Your task to perform on an android device: search for starred emails in the gmail app Image 0: 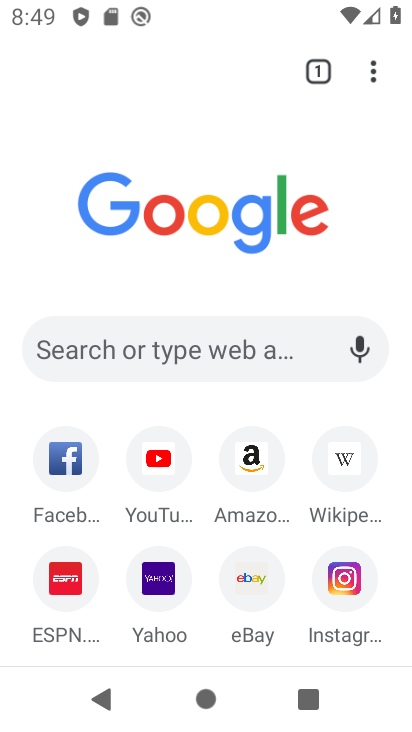
Step 0: press home button
Your task to perform on an android device: search for starred emails in the gmail app Image 1: 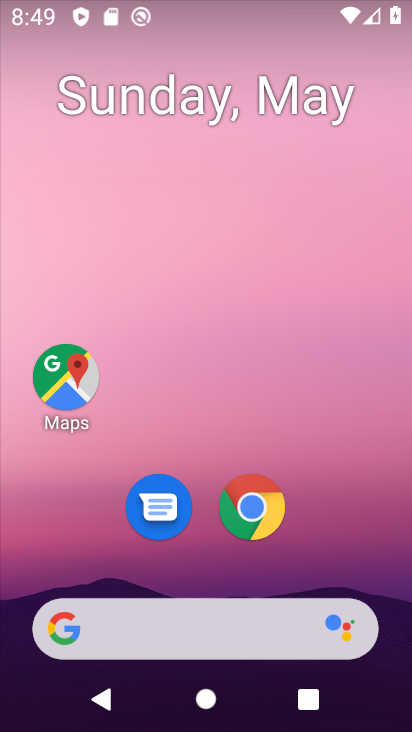
Step 1: drag from (206, 557) to (234, 204)
Your task to perform on an android device: search for starred emails in the gmail app Image 2: 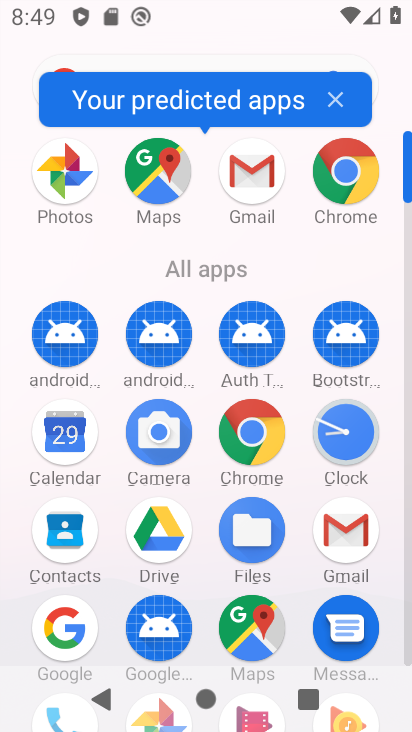
Step 2: click (342, 534)
Your task to perform on an android device: search for starred emails in the gmail app Image 3: 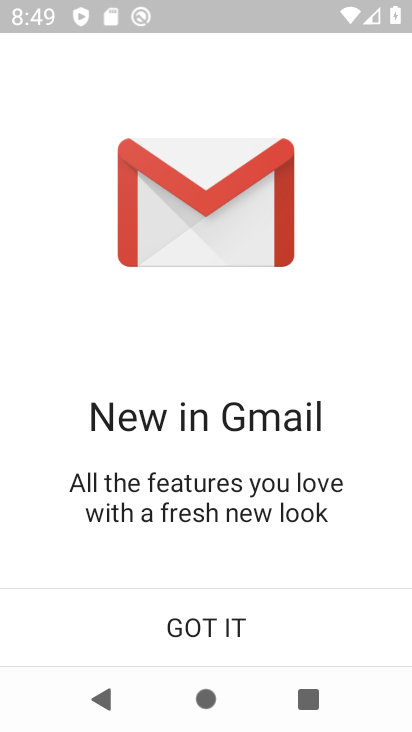
Step 3: click (231, 642)
Your task to perform on an android device: search for starred emails in the gmail app Image 4: 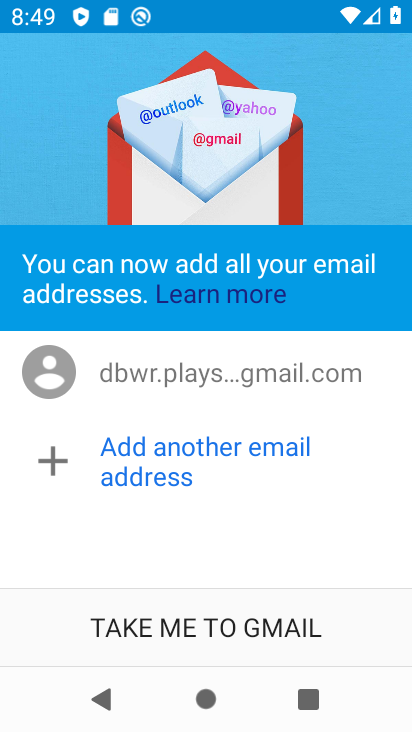
Step 4: click (233, 640)
Your task to perform on an android device: search for starred emails in the gmail app Image 5: 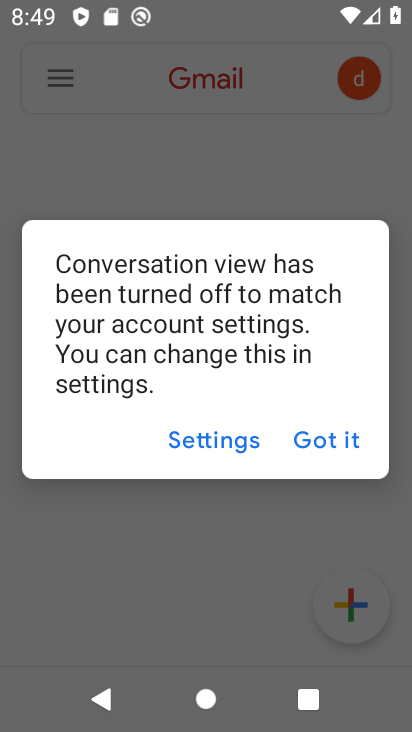
Step 5: click (318, 433)
Your task to perform on an android device: search for starred emails in the gmail app Image 6: 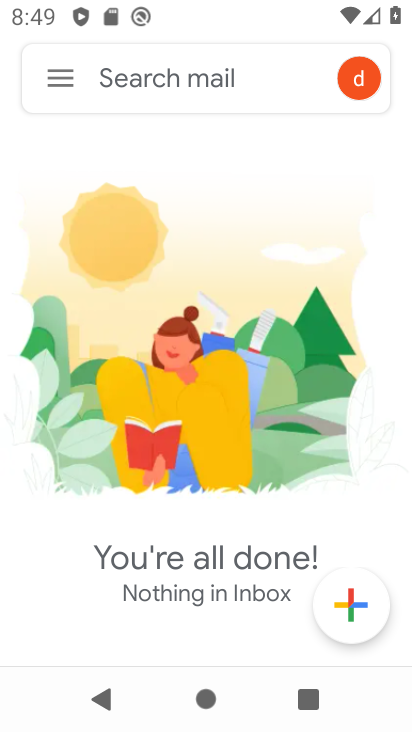
Step 6: click (60, 77)
Your task to perform on an android device: search for starred emails in the gmail app Image 7: 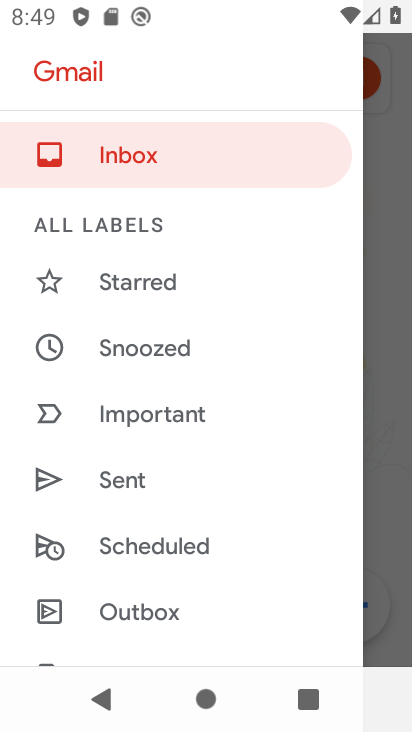
Step 7: click (142, 268)
Your task to perform on an android device: search for starred emails in the gmail app Image 8: 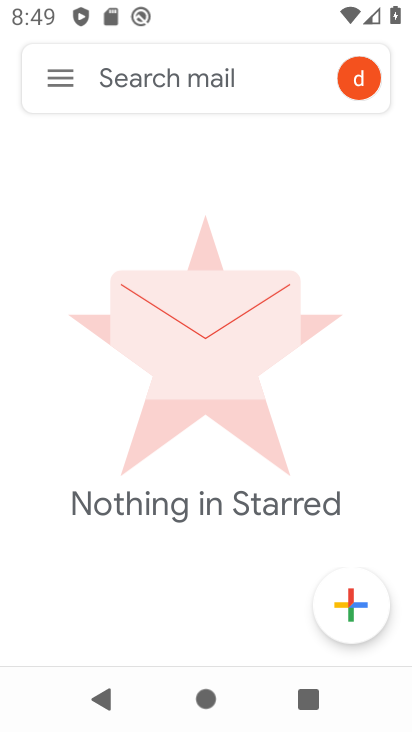
Step 8: task complete